Your task to perform on an android device: Open Google Chrome Image 0: 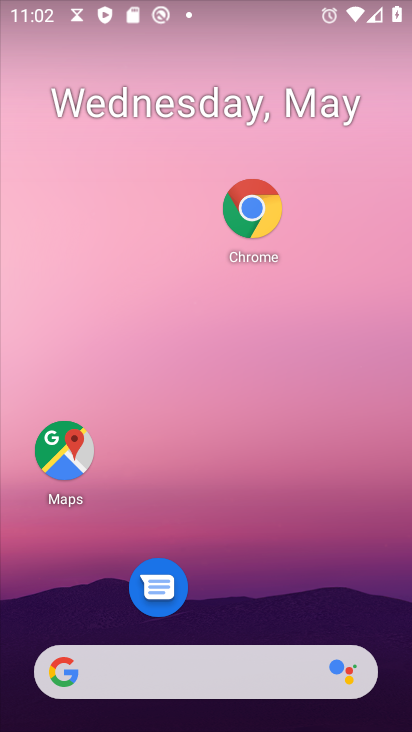
Step 0: click (263, 200)
Your task to perform on an android device: Open Google Chrome Image 1: 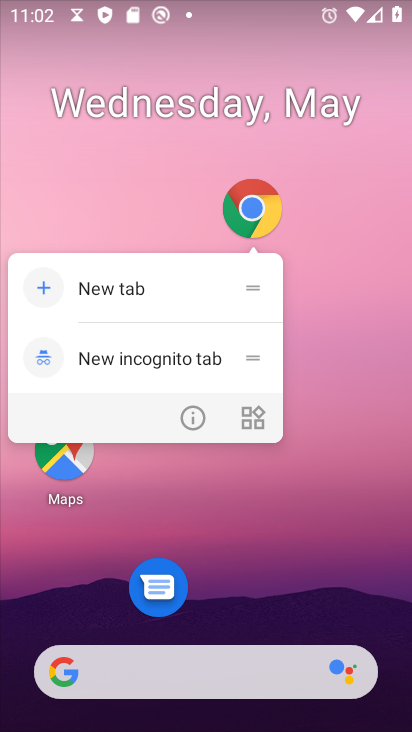
Step 1: click (248, 211)
Your task to perform on an android device: Open Google Chrome Image 2: 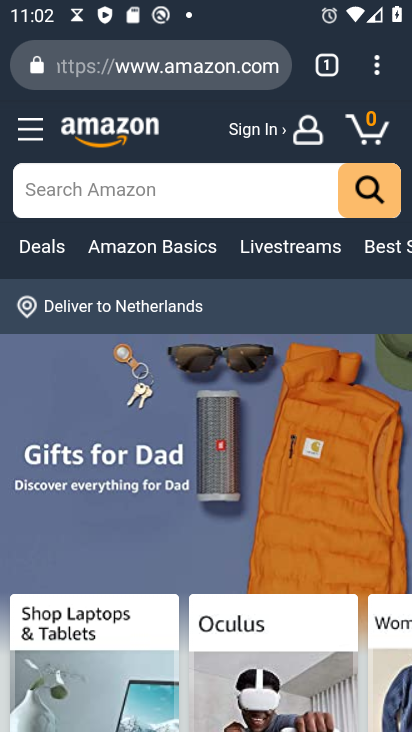
Step 2: task complete